Your task to perform on an android device: Go to eBay Image 0: 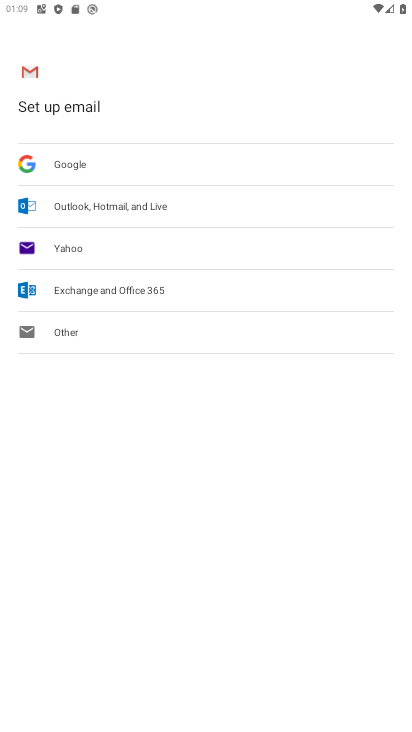
Step 0: press home button
Your task to perform on an android device: Go to eBay Image 1: 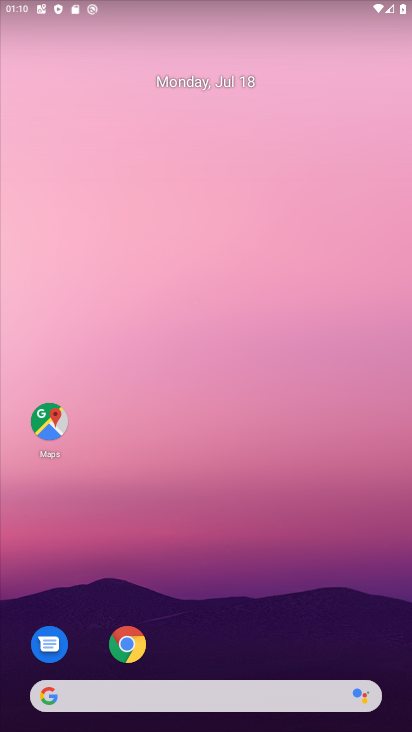
Step 1: click (132, 644)
Your task to perform on an android device: Go to eBay Image 2: 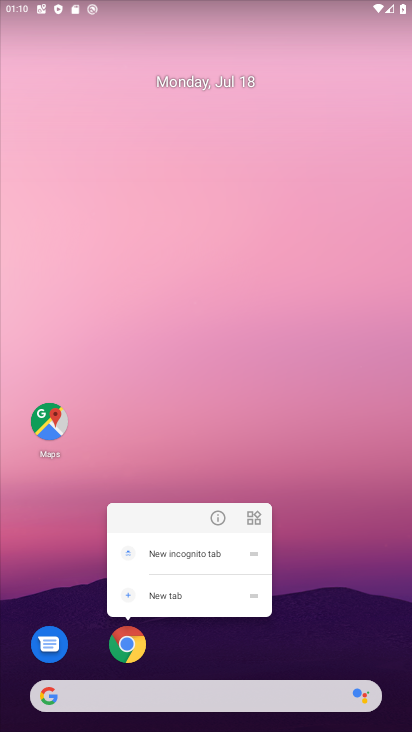
Step 2: click (132, 627)
Your task to perform on an android device: Go to eBay Image 3: 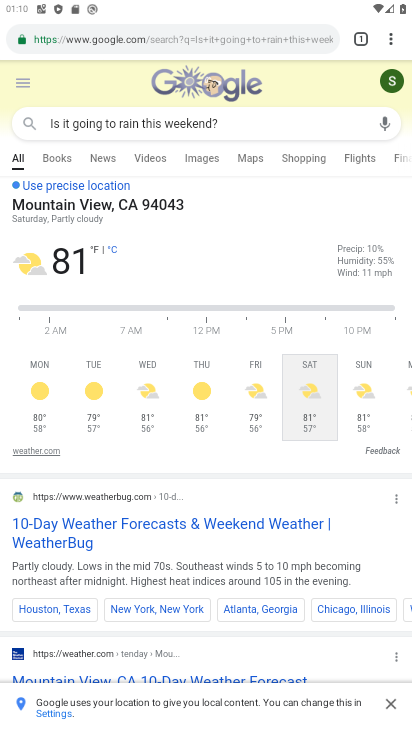
Step 3: task complete